Your task to perform on an android device: Go to internet settings Image 0: 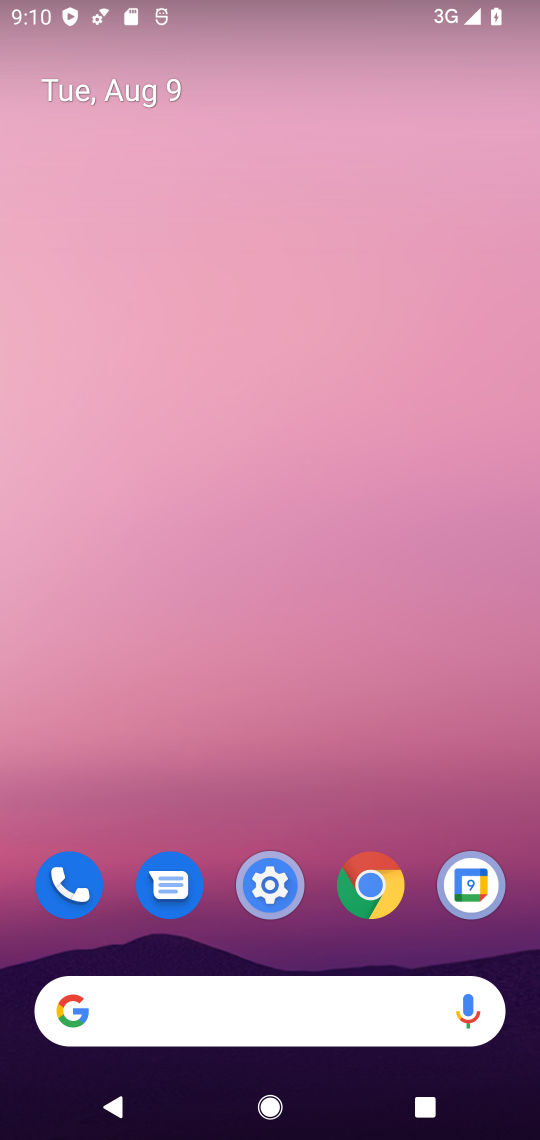
Step 0: press home button
Your task to perform on an android device: Go to internet settings Image 1: 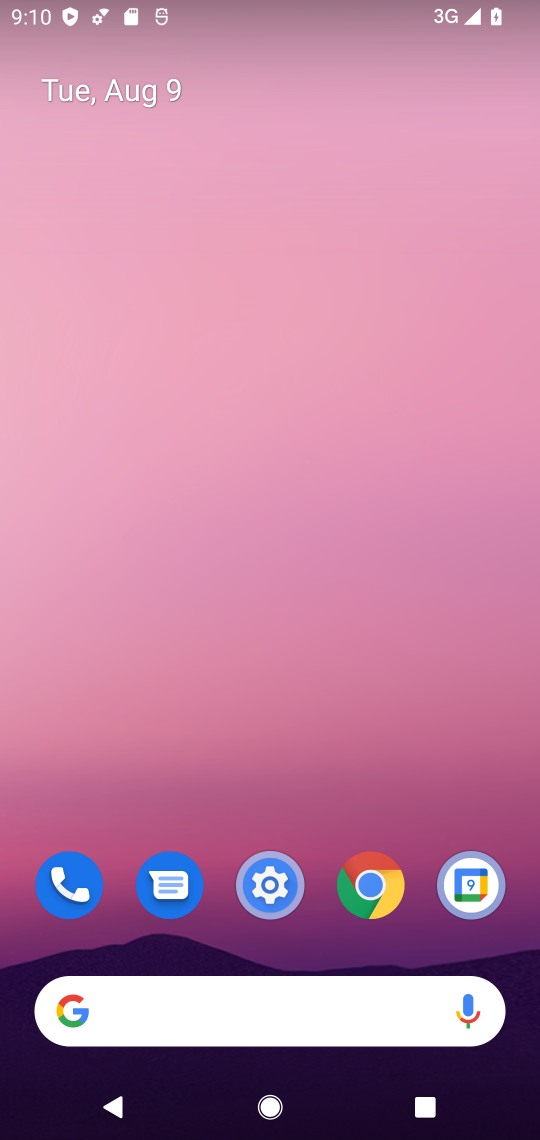
Step 1: click (267, 885)
Your task to perform on an android device: Go to internet settings Image 2: 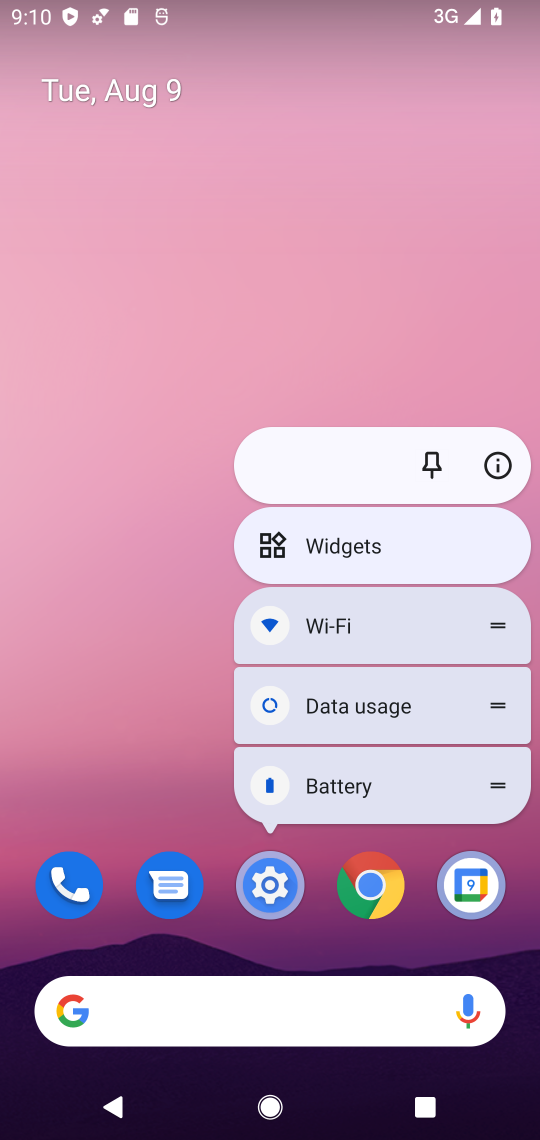
Step 2: click (132, 653)
Your task to perform on an android device: Go to internet settings Image 3: 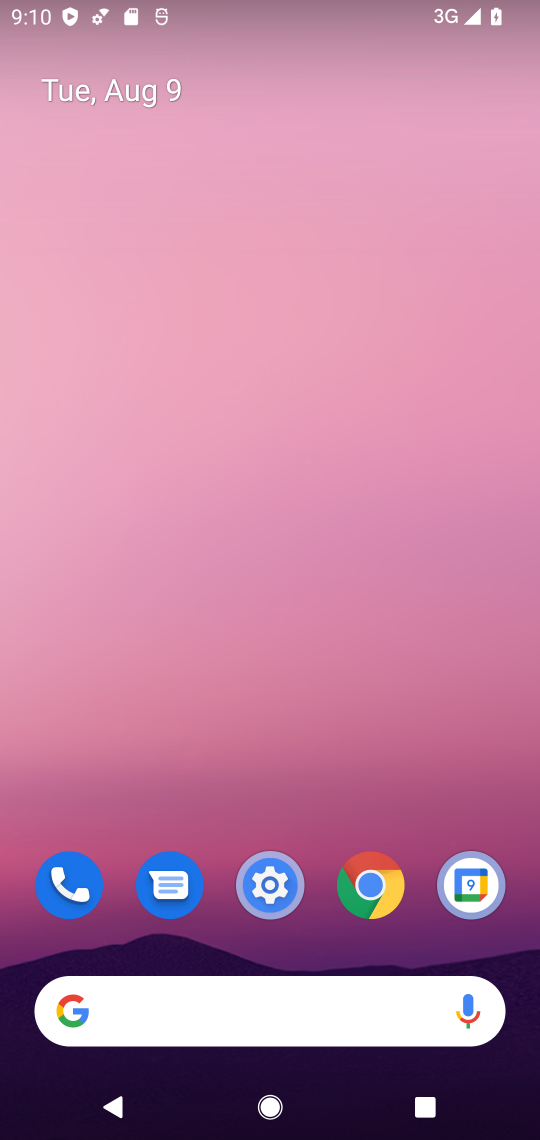
Step 3: click (266, 880)
Your task to perform on an android device: Go to internet settings Image 4: 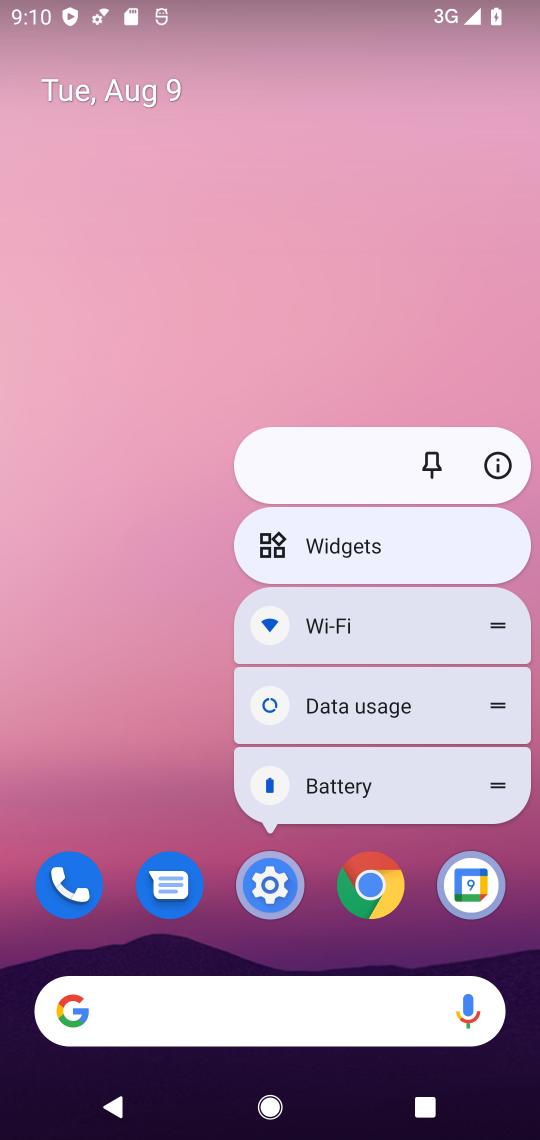
Step 4: click (279, 880)
Your task to perform on an android device: Go to internet settings Image 5: 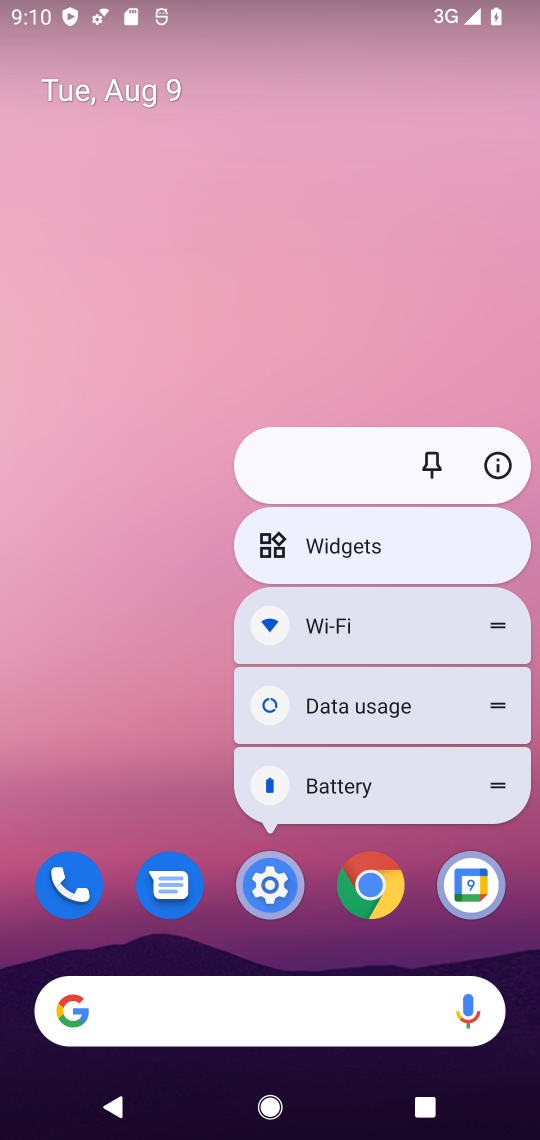
Step 5: click (142, 722)
Your task to perform on an android device: Go to internet settings Image 6: 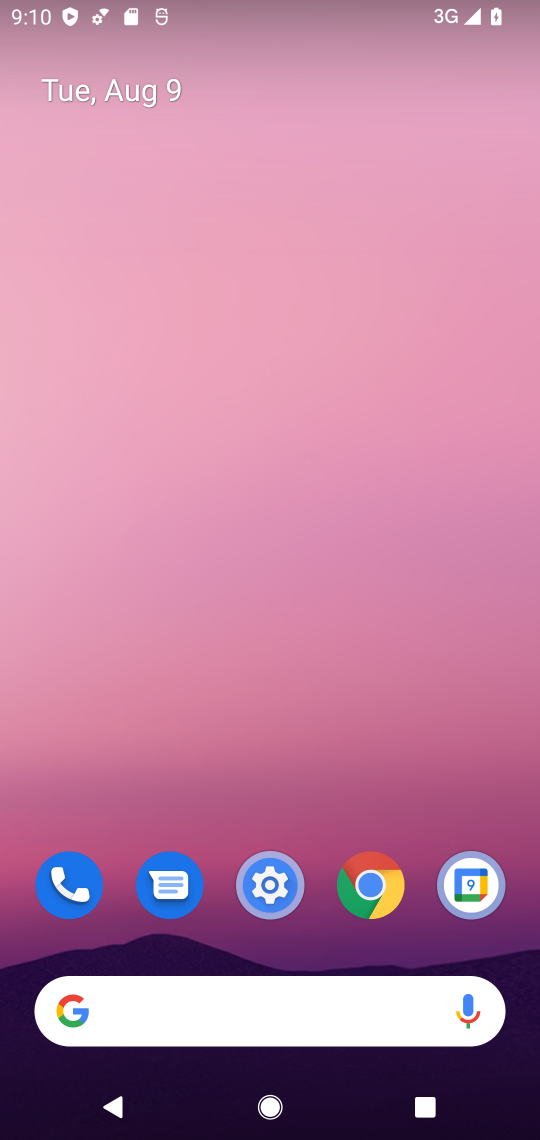
Step 6: drag from (196, 752) to (182, 95)
Your task to perform on an android device: Go to internet settings Image 7: 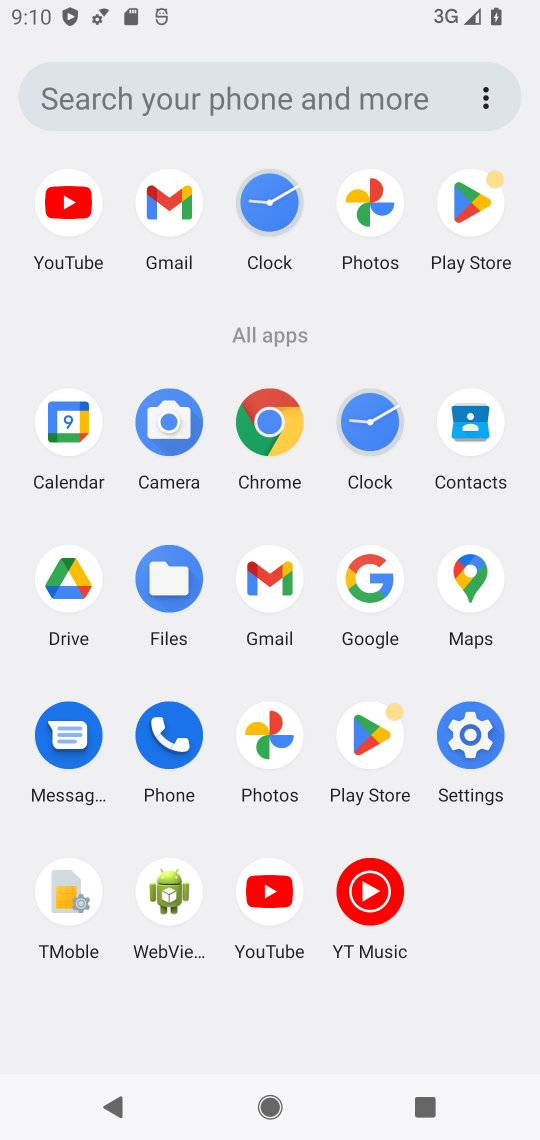
Step 7: click (471, 728)
Your task to perform on an android device: Go to internet settings Image 8: 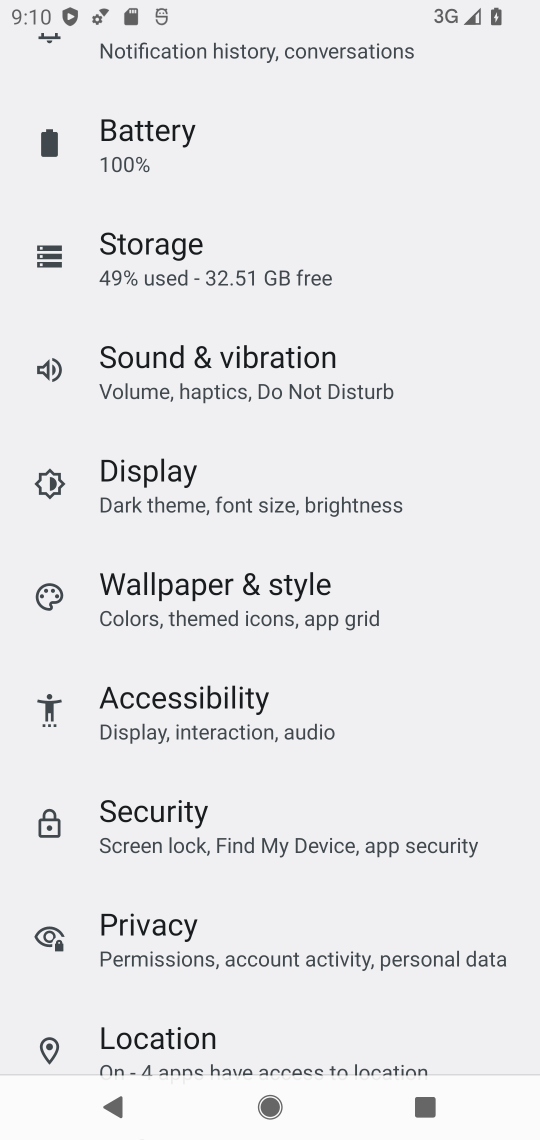
Step 8: drag from (246, 216) to (438, 1110)
Your task to perform on an android device: Go to internet settings Image 9: 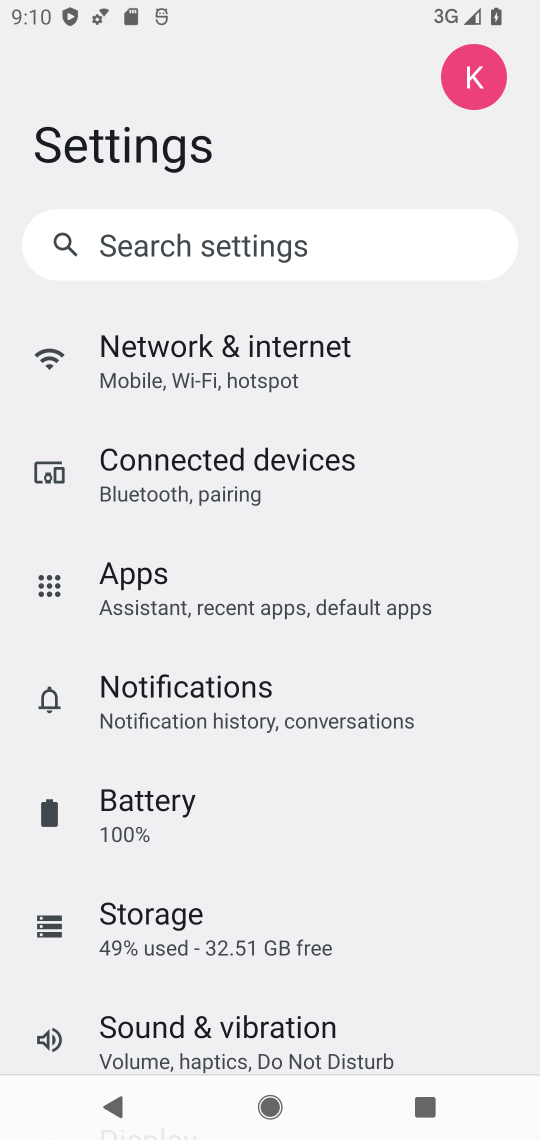
Step 9: click (253, 357)
Your task to perform on an android device: Go to internet settings Image 10: 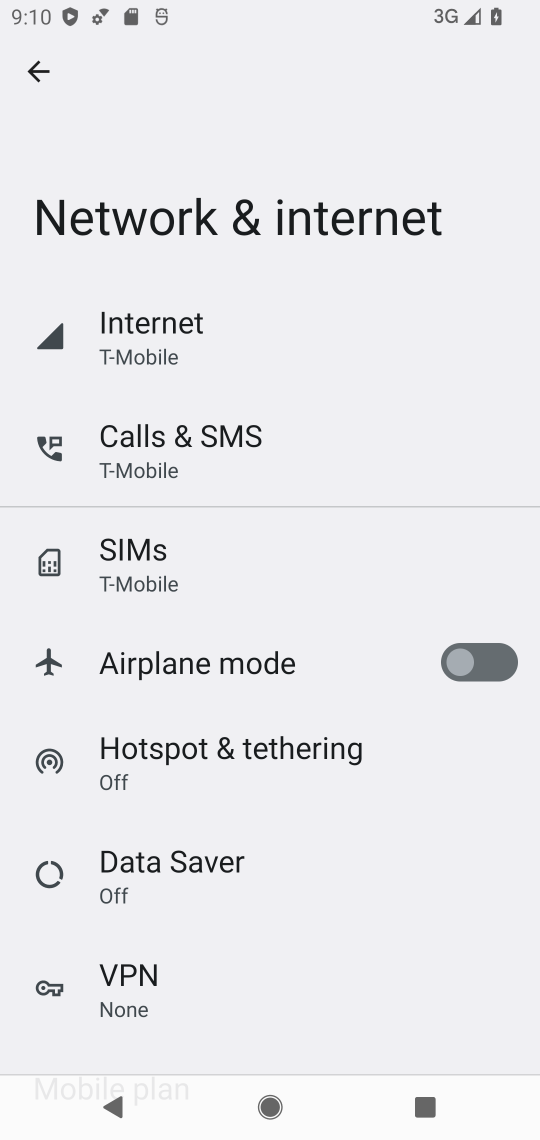
Step 10: click (215, 334)
Your task to perform on an android device: Go to internet settings Image 11: 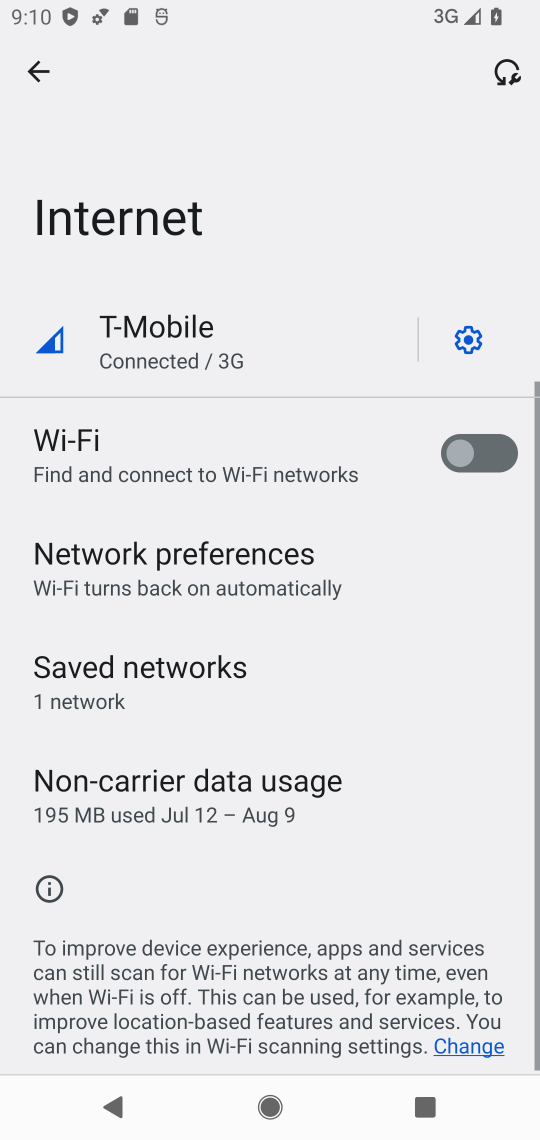
Step 11: task complete